Your task to perform on an android device: find snoozed emails in the gmail app Image 0: 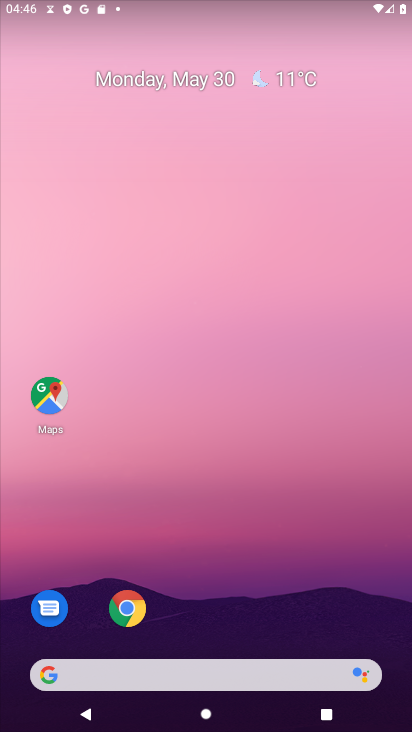
Step 0: drag from (180, 646) to (191, 272)
Your task to perform on an android device: find snoozed emails in the gmail app Image 1: 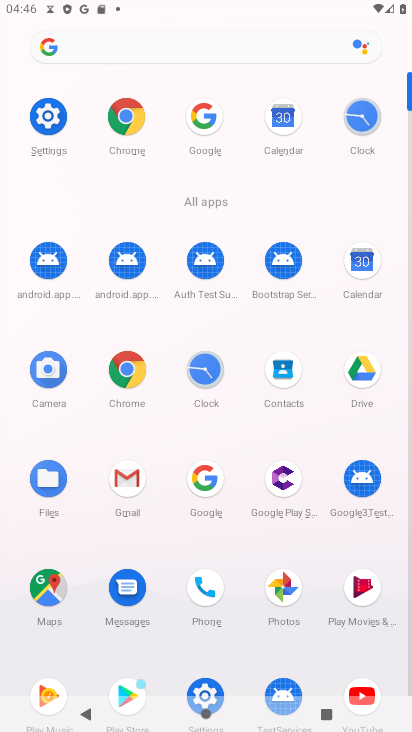
Step 1: click (134, 469)
Your task to perform on an android device: find snoozed emails in the gmail app Image 2: 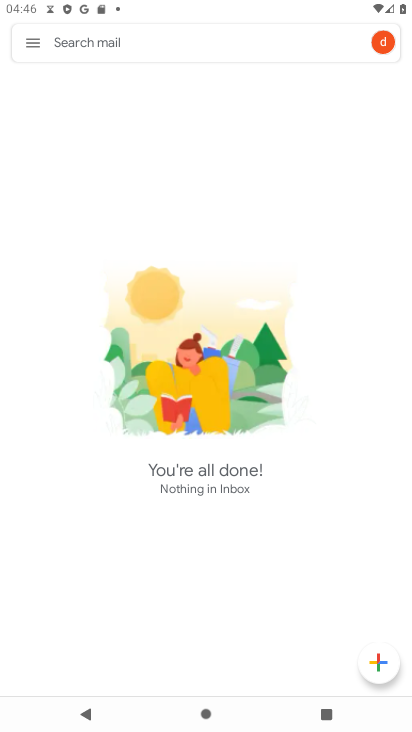
Step 2: click (38, 31)
Your task to perform on an android device: find snoozed emails in the gmail app Image 3: 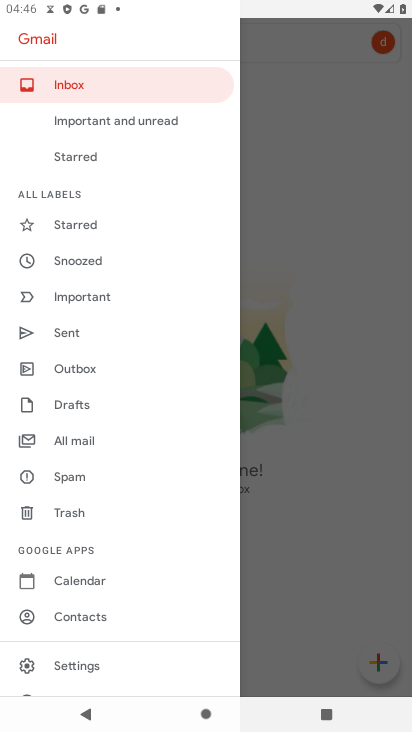
Step 3: click (97, 254)
Your task to perform on an android device: find snoozed emails in the gmail app Image 4: 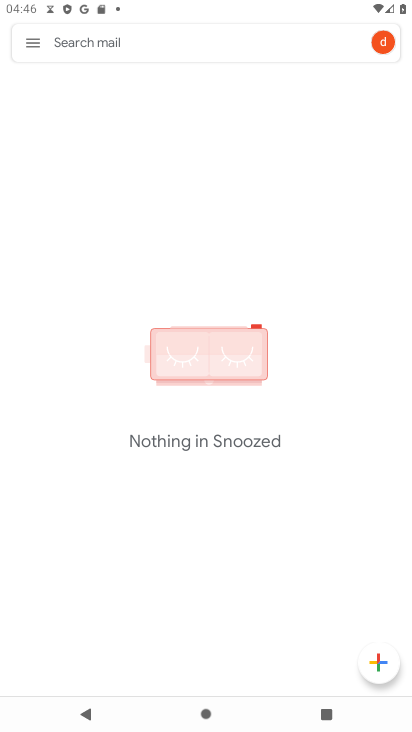
Step 4: task complete